Your task to perform on an android device: see tabs open on other devices in the chrome app Image 0: 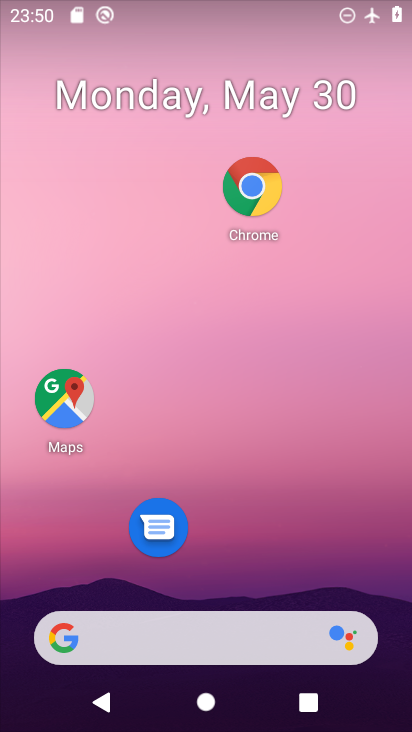
Step 0: click (248, 179)
Your task to perform on an android device: see tabs open on other devices in the chrome app Image 1: 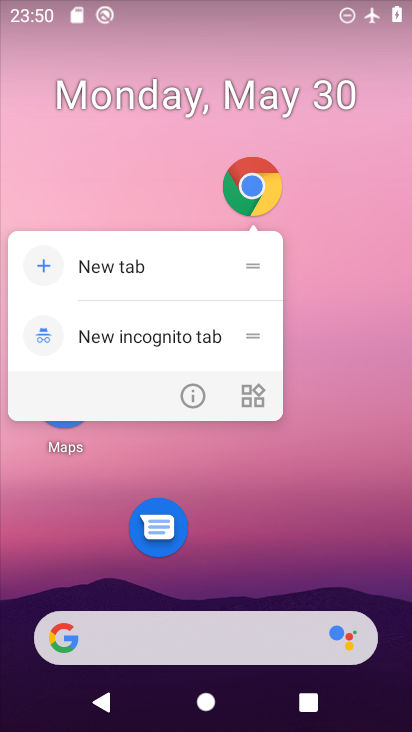
Step 1: click (268, 172)
Your task to perform on an android device: see tabs open on other devices in the chrome app Image 2: 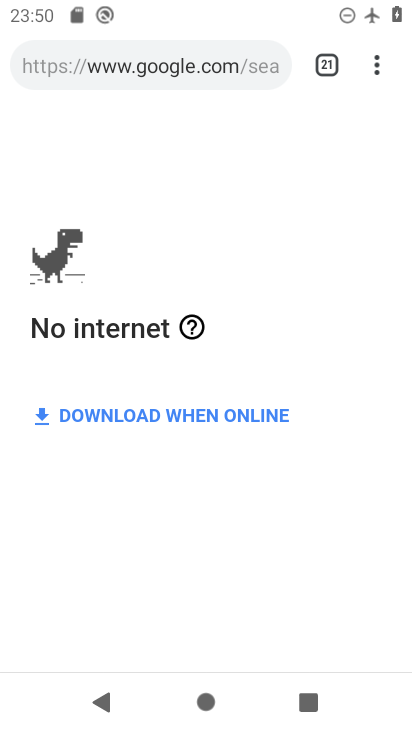
Step 2: click (375, 65)
Your task to perform on an android device: see tabs open on other devices in the chrome app Image 3: 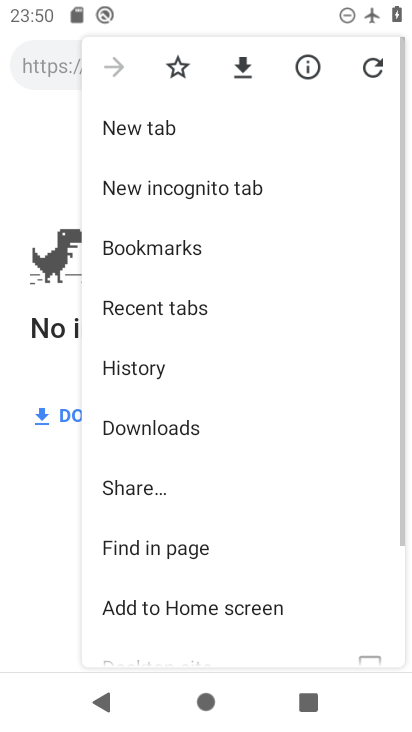
Step 3: click (147, 133)
Your task to perform on an android device: see tabs open on other devices in the chrome app Image 4: 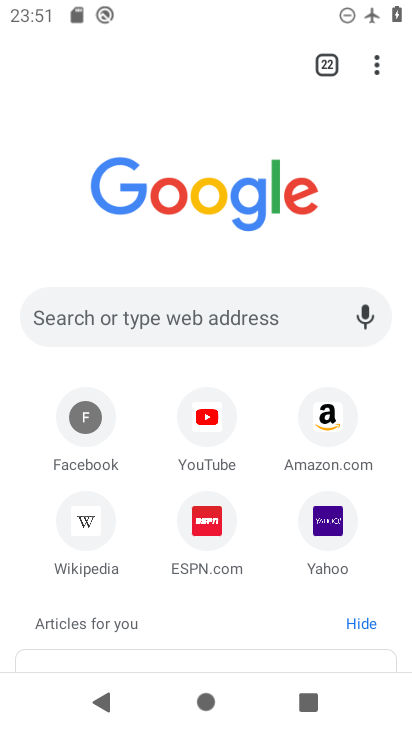
Step 4: task complete